Your task to perform on an android device: change the upload size in google photos Image 0: 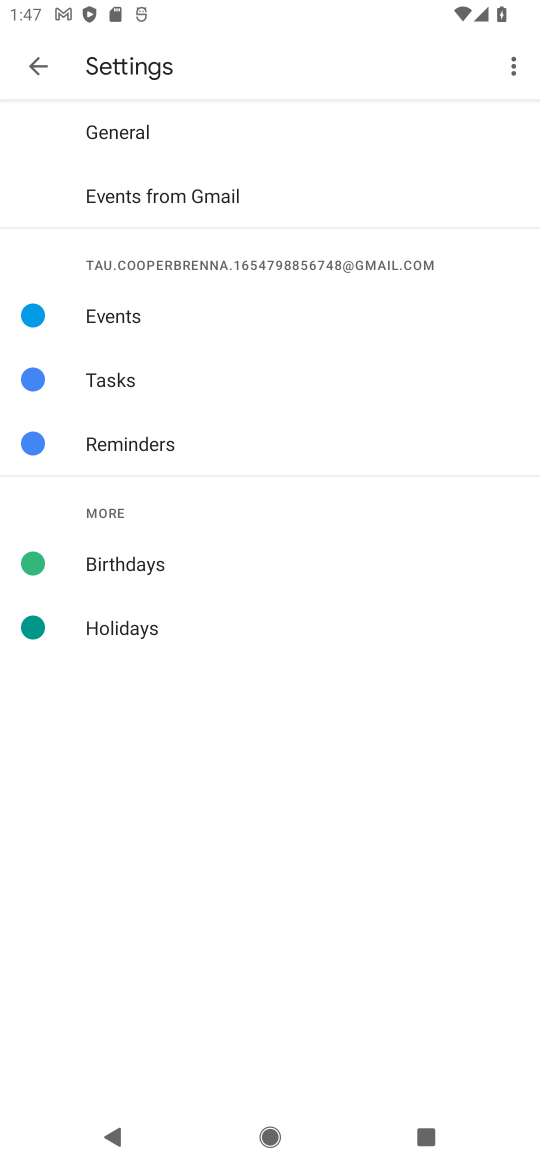
Step 0: press home button
Your task to perform on an android device: change the upload size in google photos Image 1: 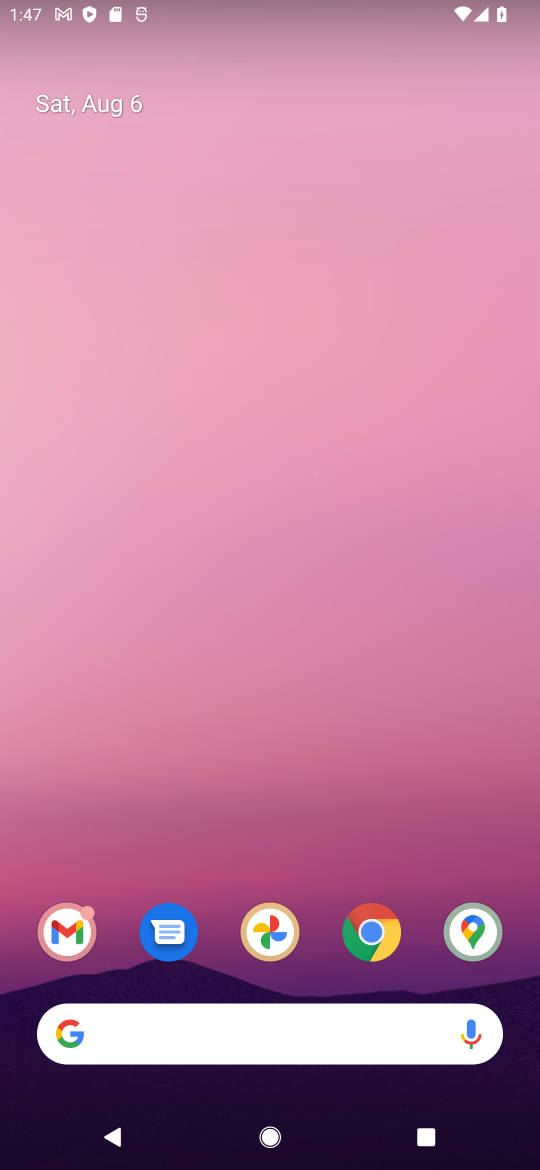
Step 1: drag from (284, 872) to (271, 62)
Your task to perform on an android device: change the upload size in google photos Image 2: 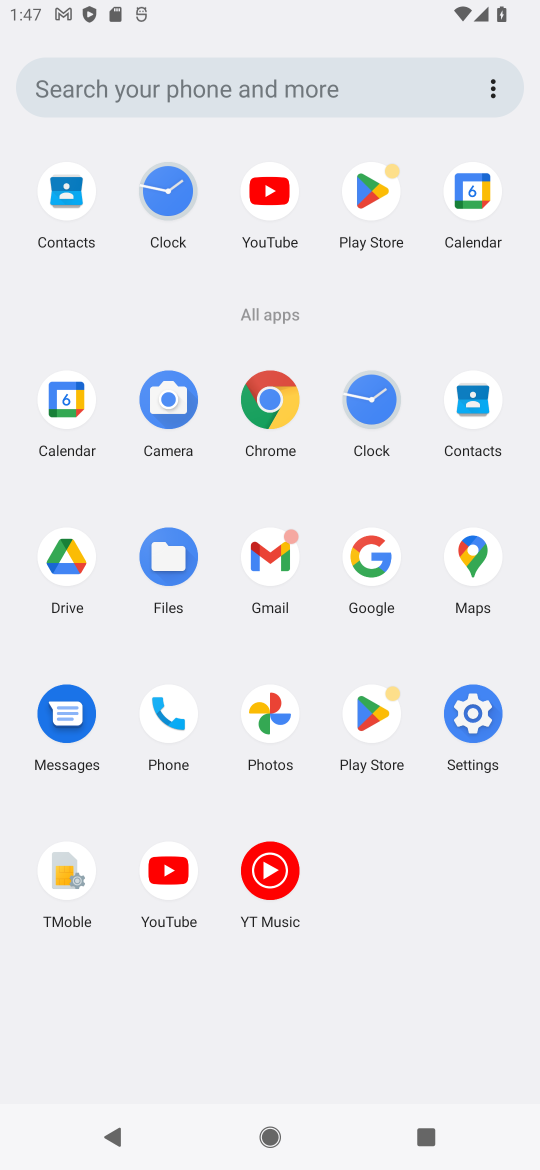
Step 2: click (285, 720)
Your task to perform on an android device: change the upload size in google photos Image 3: 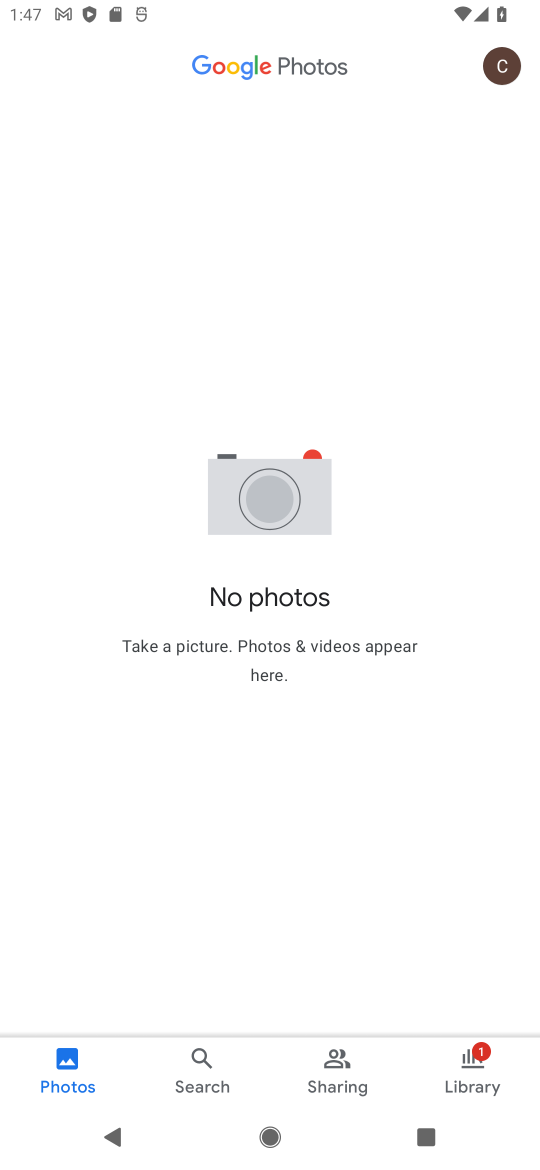
Step 3: click (506, 64)
Your task to perform on an android device: change the upload size in google photos Image 4: 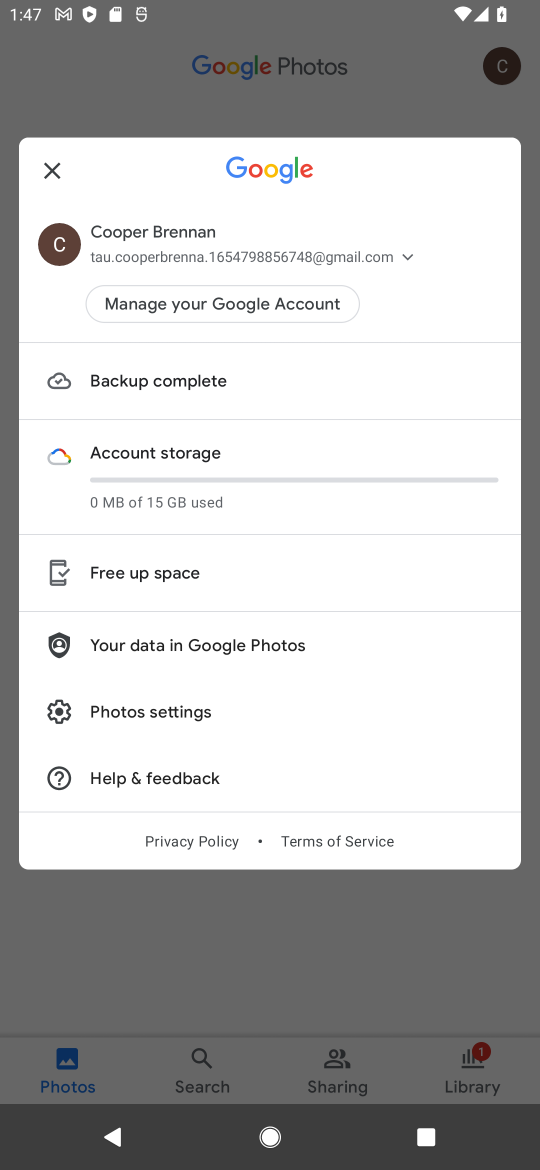
Step 4: click (184, 697)
Your task to perform on an android device: change the upload size in google photos Image 5: 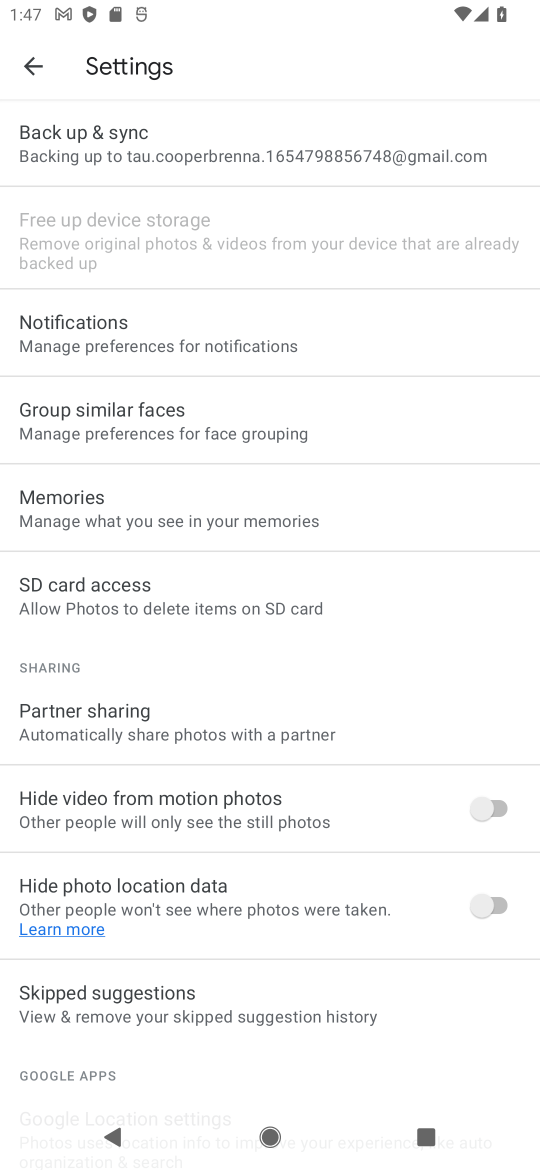
Step 5: click (205, 141)
Your task to perform on an android device: change the upload size in google photos Image 6: 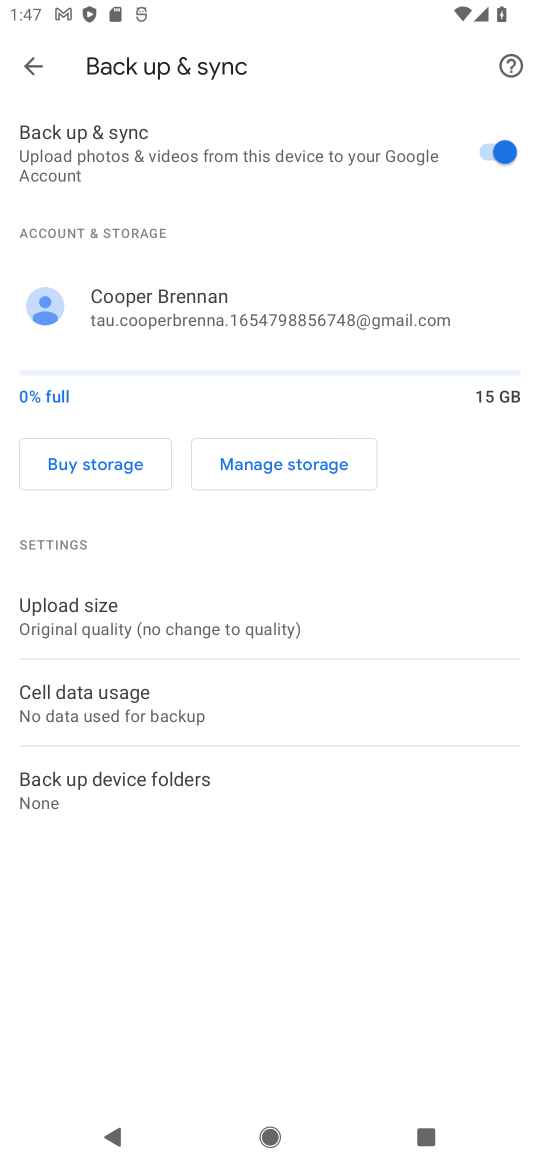
Step 6: click (214, 618)
Your task to perform on an android device: change the upload size in google photos Image 7: 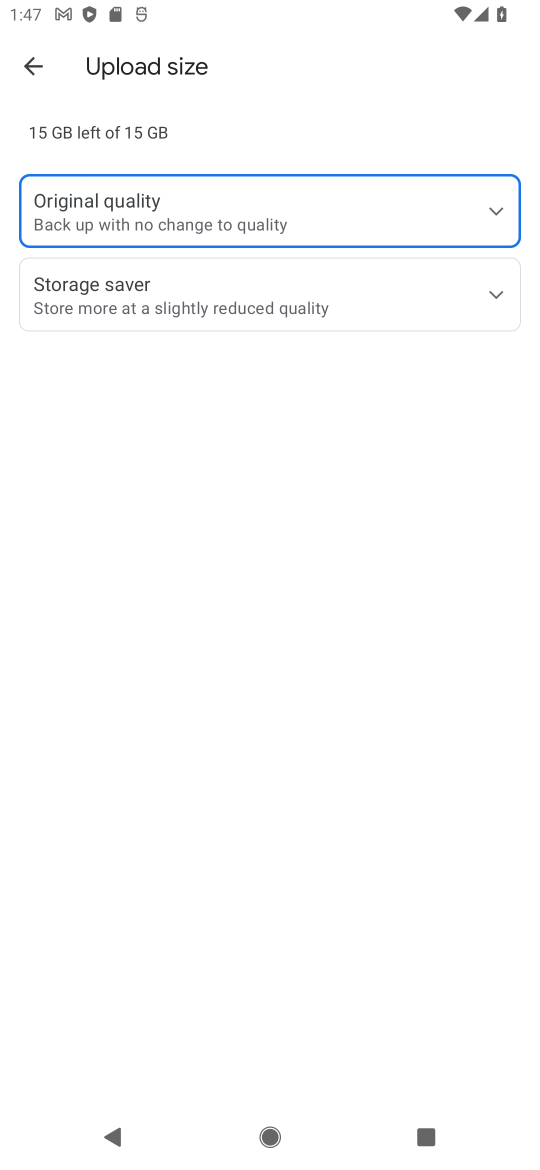
Step 7: click (153, 293)
Your task to perform on an android device: change the upload size in google photos Image 8: 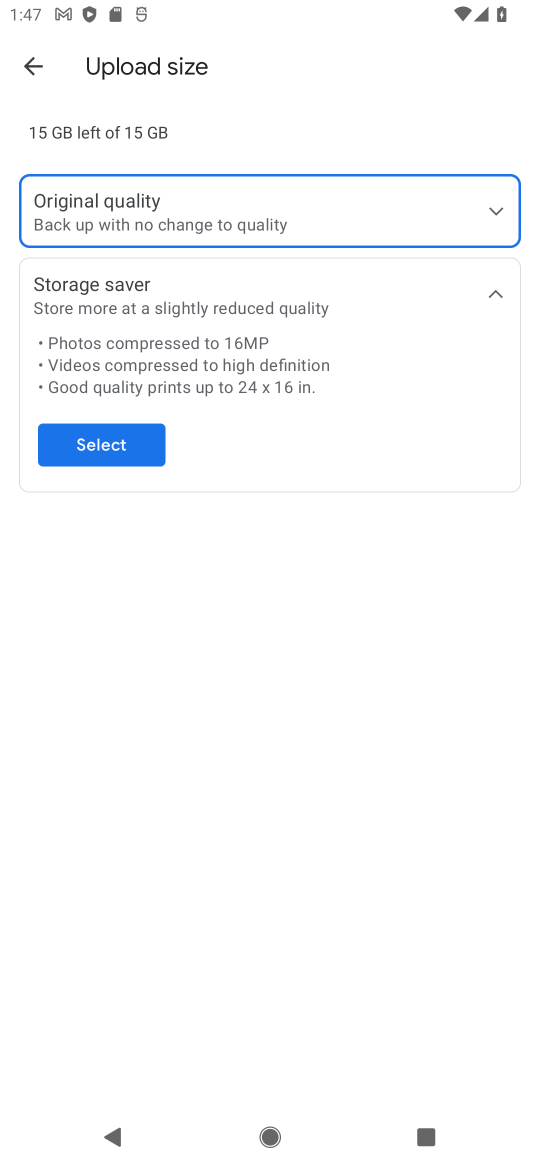
Step 8: click (104, 458)
Your task to perform on an android device: change the upload size in google photos Image 9: 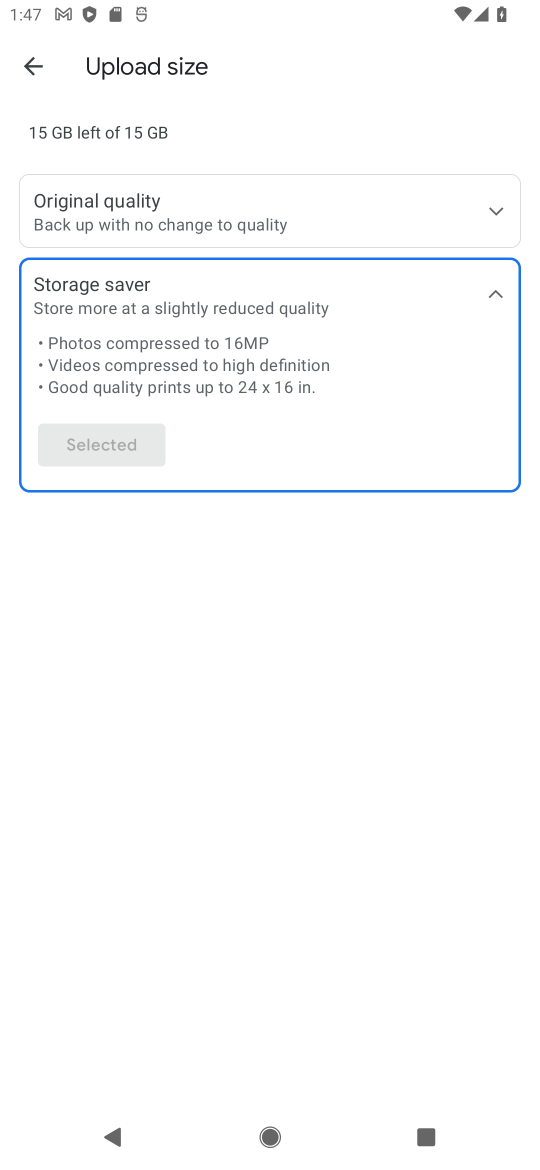
Step 9: task complete